Your task to perform on an android device: turn on sleep mode Image 0: 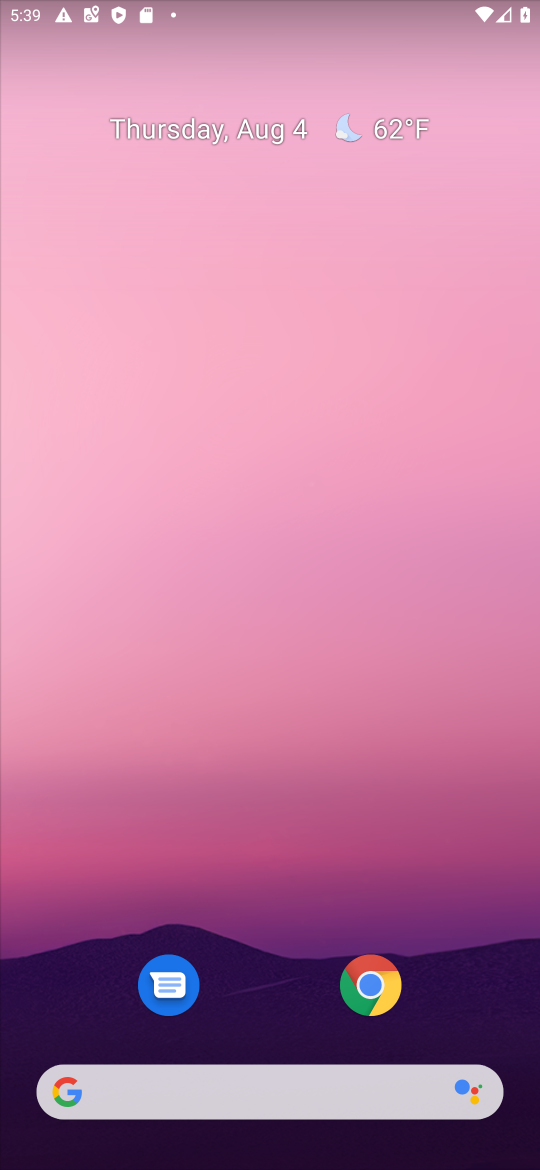
Step 0: press back button
Your task to perform on an android device: turn on sleep mode Image 1: 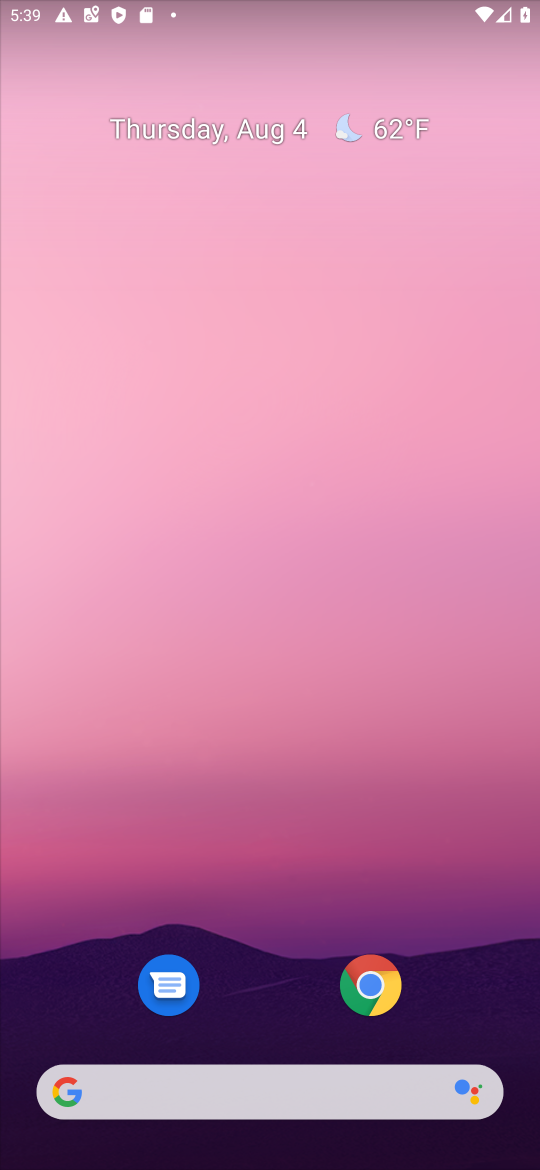
Step 1: drag from (302, 1078) to (350, 177)
Your task to perform on an android device: turn on sleep mode Image 2: 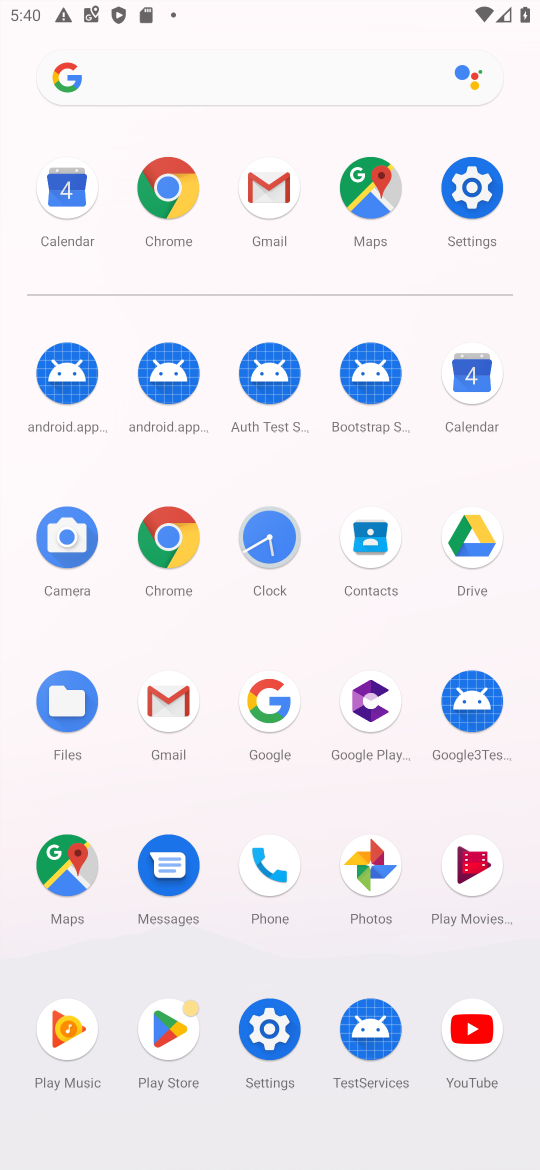
Step 2: click (471, 200)
Your task to perform on an android device: turn on sleep mode Image 3: 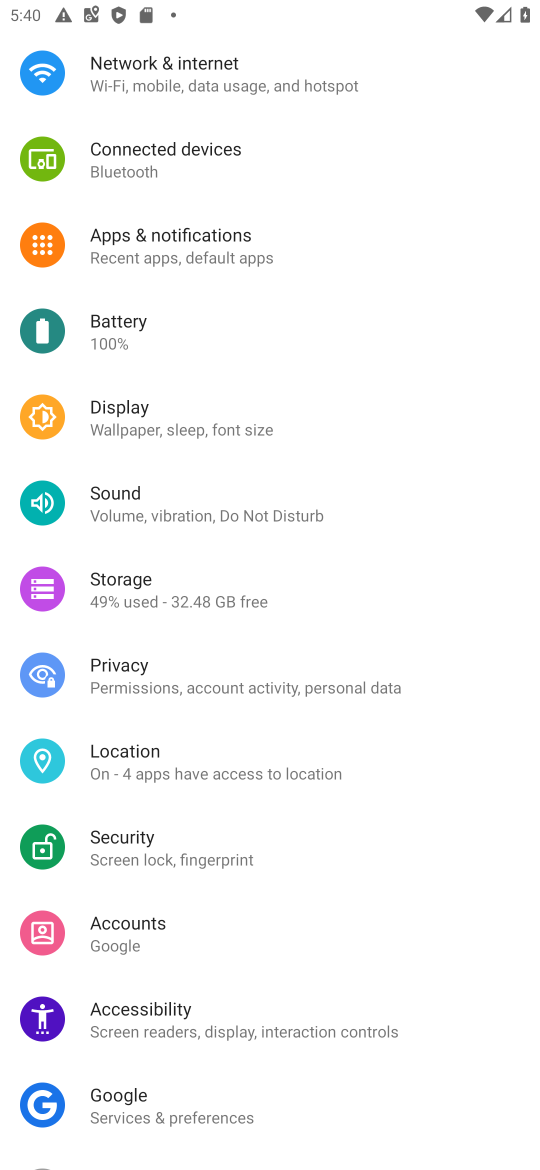
Step 3: click (172, 420)
Your task to perform on an android device: turn on sleep mode Image 4: 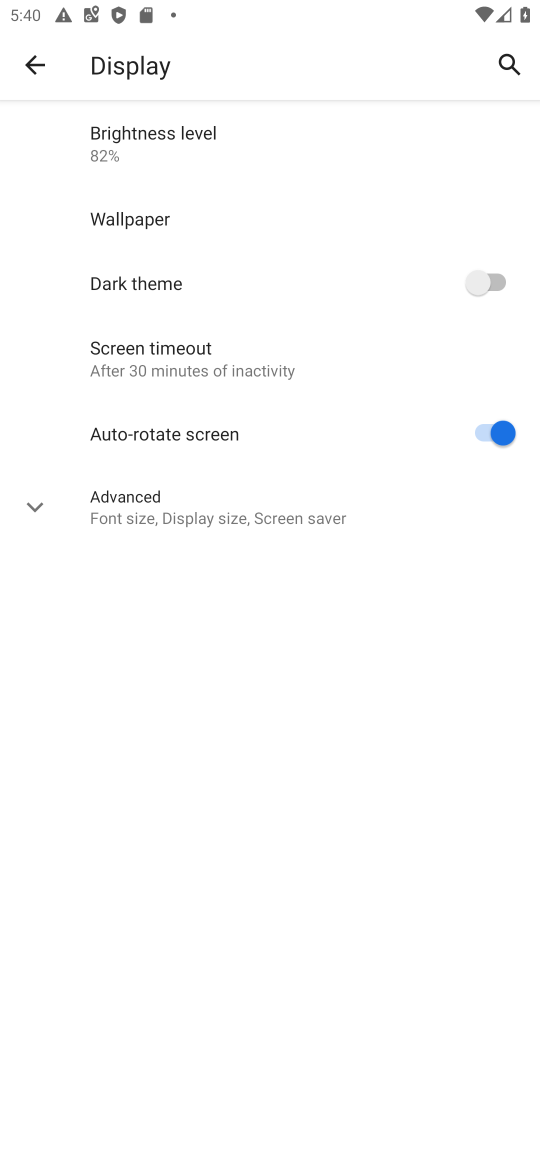
Step 4: click (183, 522)
Your task to perform on an android device: turn on sleep mode Image 5: 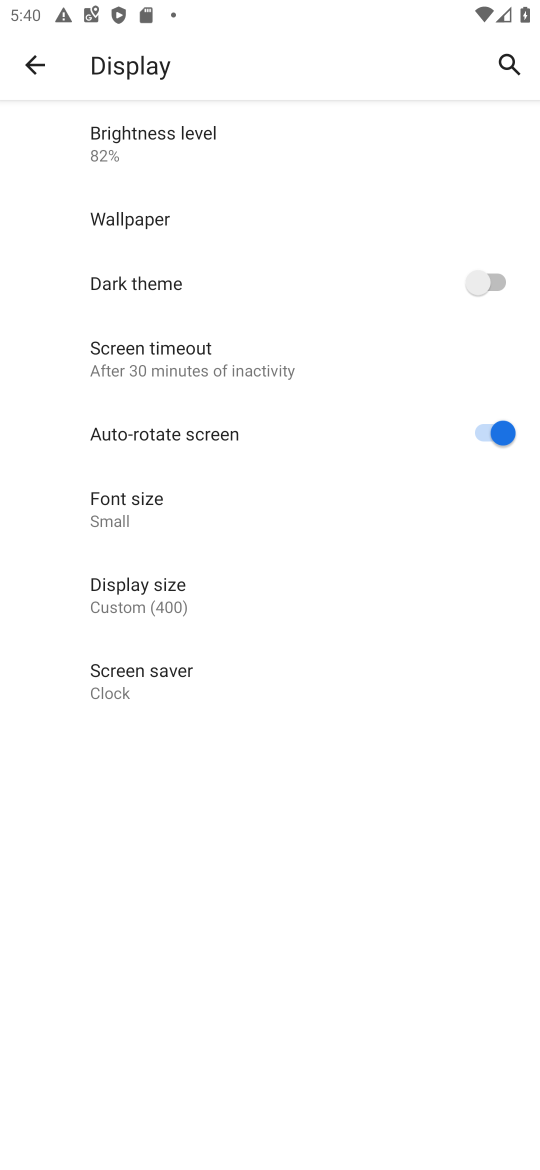
Step 5: task complete